Your task to perform on an android device: Open location settings Image 0: 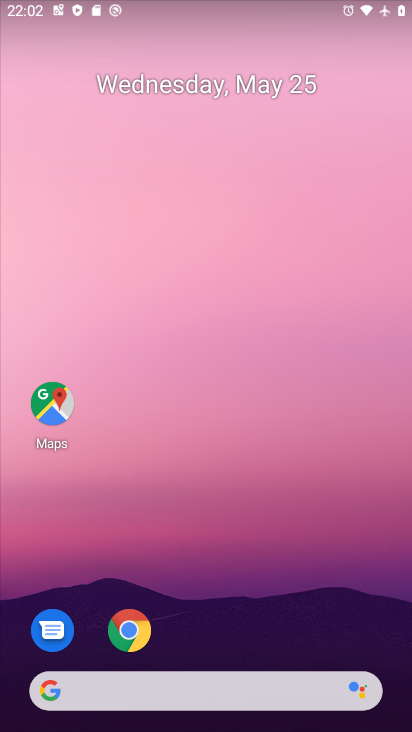
Step 0: drag from (239, 622) to (239, 152)
Your task to perform on an android device: Open location settings Image 1: 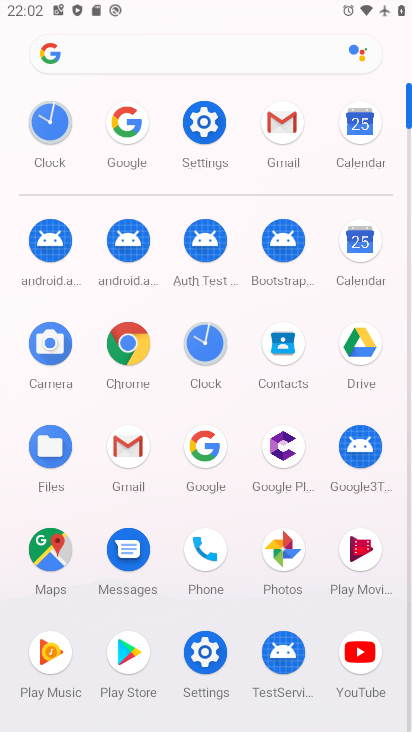
Step 1: click (206, 121)
Your task to perform on an android device: Open location settings Image 2: 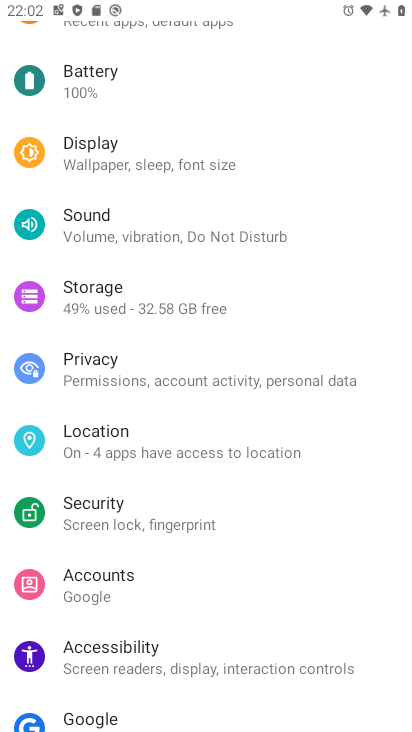
Step 2: click (137, 456)
Your task to perform on an android device: Open location settings Image 3: 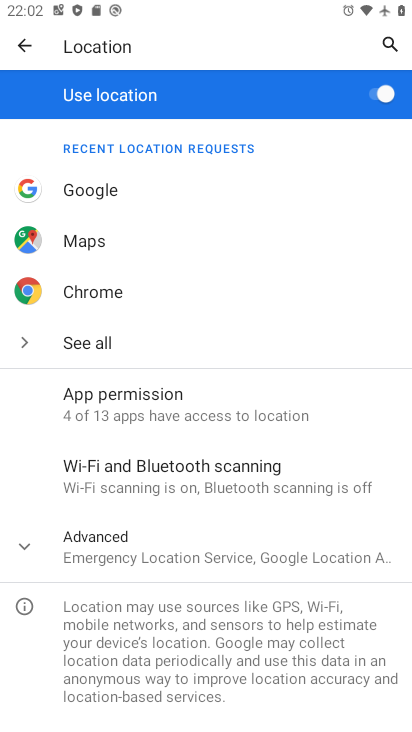
Step 3: task complete